Your task to perform on an android device: change notifications settings Image 0: 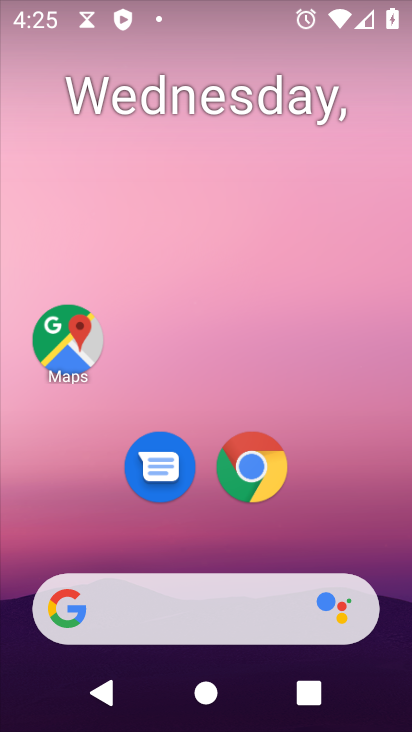
Step 0: drag from (393, 534) to (412, 98)
Your task to perform on an android device: change notifications settings Image 1: 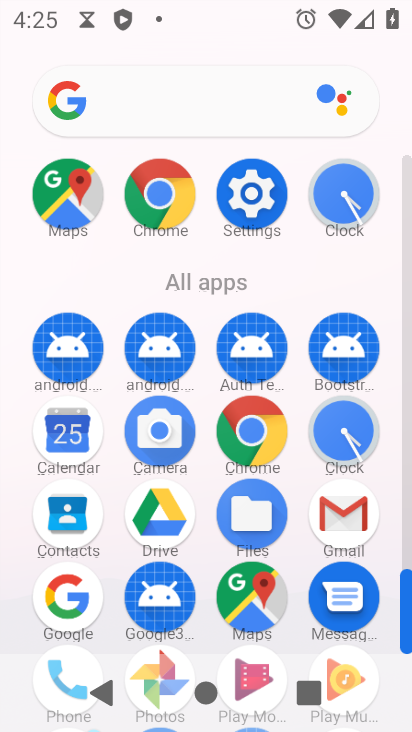
Step 1: click (256, 183)
Your task to perform on an android device: change notifications settings Image 2: 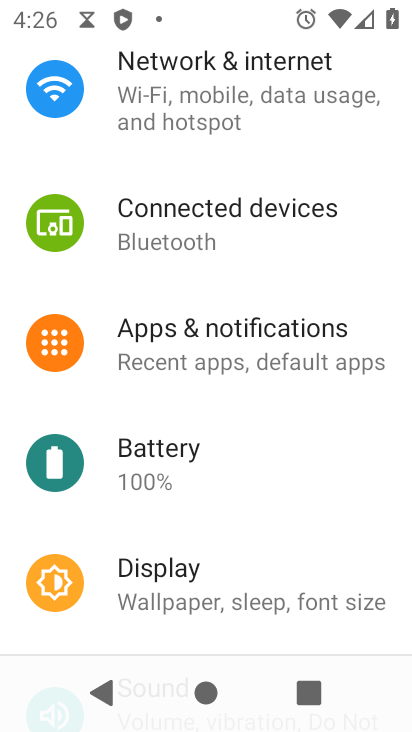
Step 2: click (299, 336)
Your task to perform on an android device: change notifications settings Image 3: 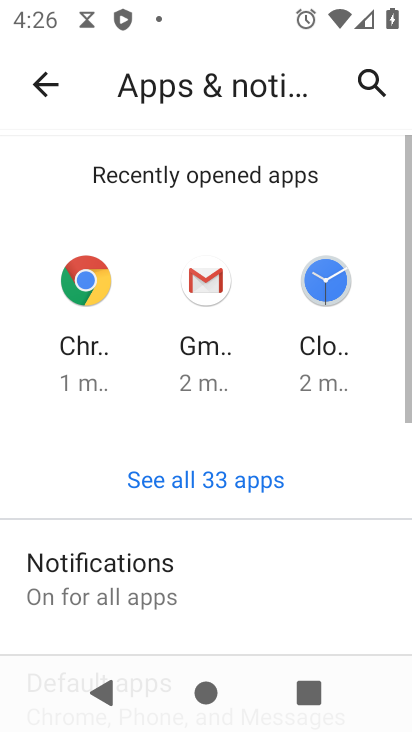
Step 3: click (131, 584)
Your task to perform on an android device: change notifications settings Image 4: 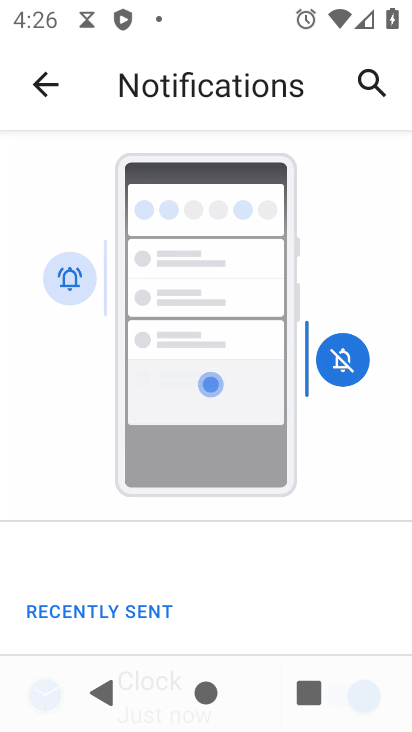
Step 4: task complete